Your task to perform on an android device: delete browsing data in the chrome app Image 0: 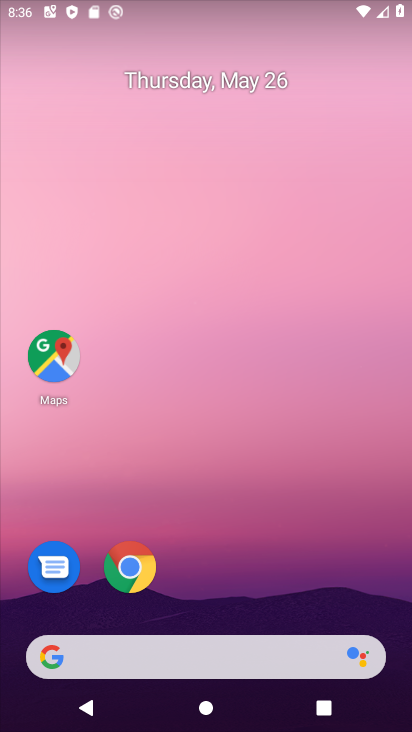
Step 0: click (127, 577)
Your task to perform on an android device: delete browsing data in the chrome app Image 1: 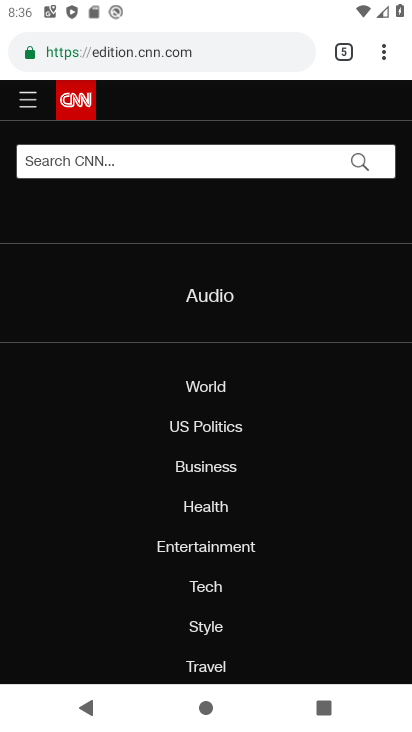
Step 1: drag from (377, 53) to (273, 619)
Your task to perform on an android device: delete browsing data in the chrome app Image 2: 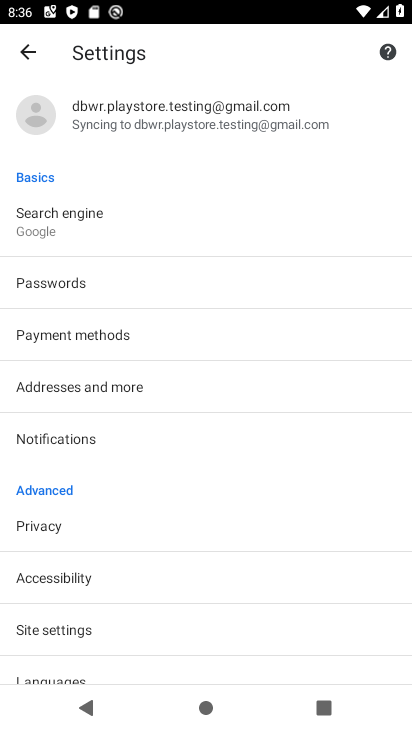
Step 2: drag from (157, 628) to (294, 378)
Your task to perform on an android device: delete browsing data in the chrome app Image 3: 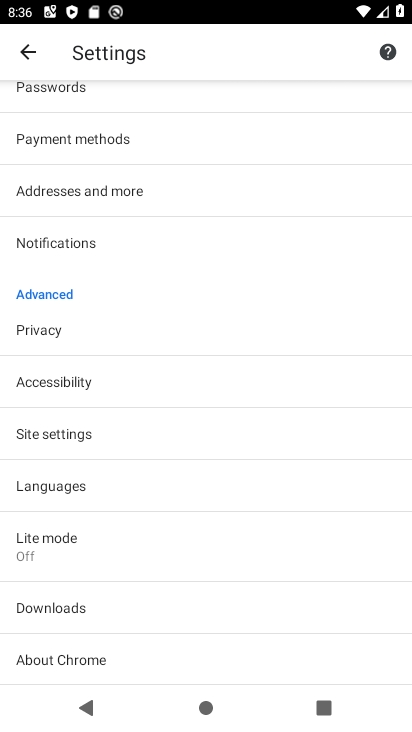
Step 3: click (39, 332)
Your task to perform on an android device: delete browsing data in the chrome app Image 4: 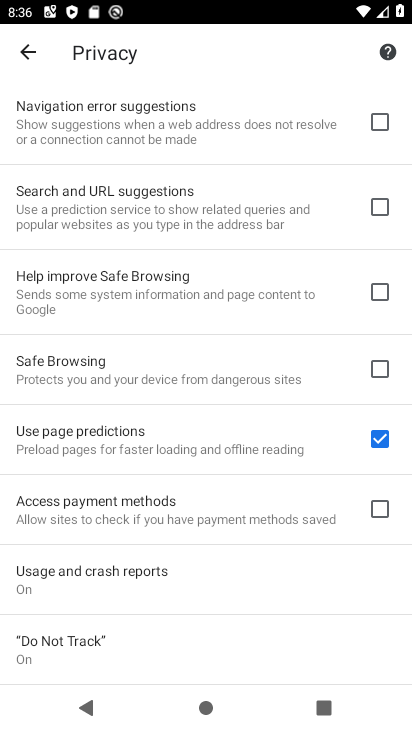
Step 4: drag from (176, 622) to (276, 269)
Your task to perform on an android device: delete browsing data in the chrome app Image 5: 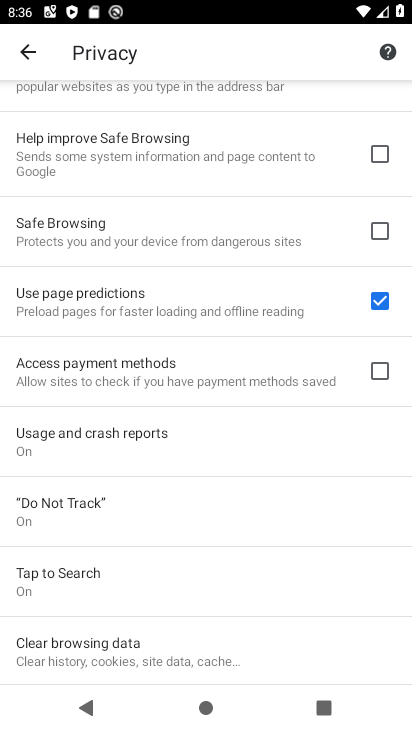
Step 5: click (137, 650)
Your task to perform on an android device: delete browsing data in the chrome app Image 6: 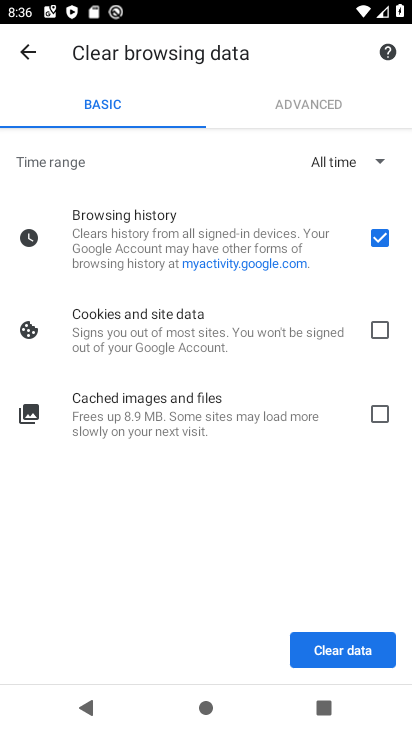
Step 6: click (381, 325)
Your task to perform on an android device: delete browsing data in the chrome app Image 7: 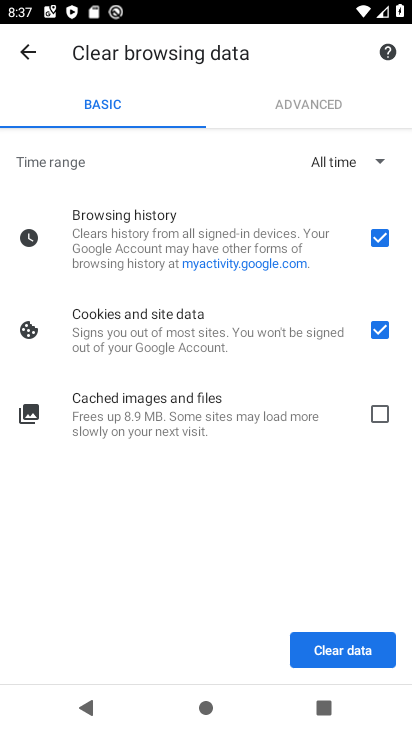
Step 7: click (371, 411)
Your task to perform on an android device: delete browsing data in the chrome app Image 8: 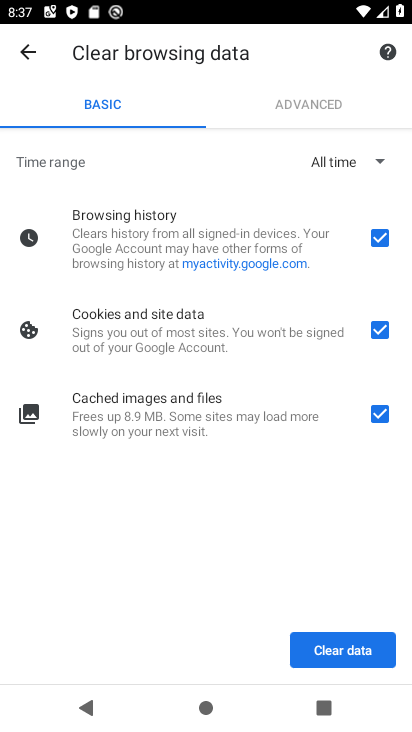
Step 8: click (355, 647)
Your task to perform on an android device: delete browsing data in the chrome app Image 9: 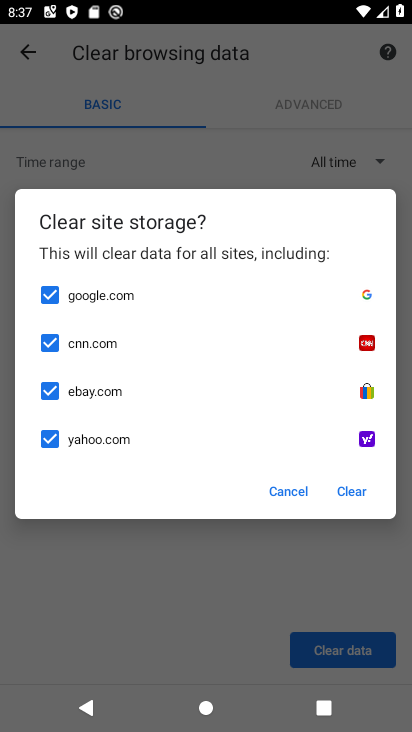
Step 9: click (348, 487)
Your task to perform on an android device: delete browsing data in the chrome app Image 10: 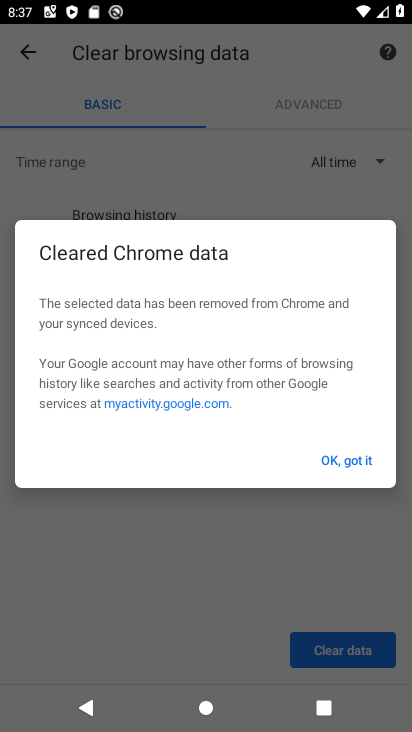
Step 10: click (356, 459)
Your task to perform on an android device: delete browsing data in the chrome app Image 11: 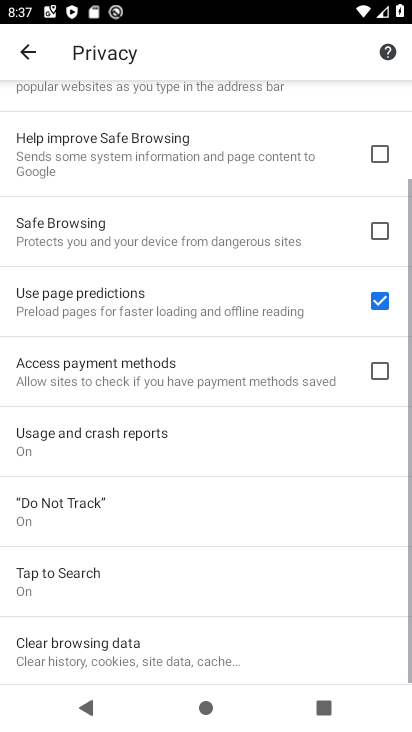
Step 11: task complete